Your task to perform on an android device: Is it going to rain this weekend? Image 0: 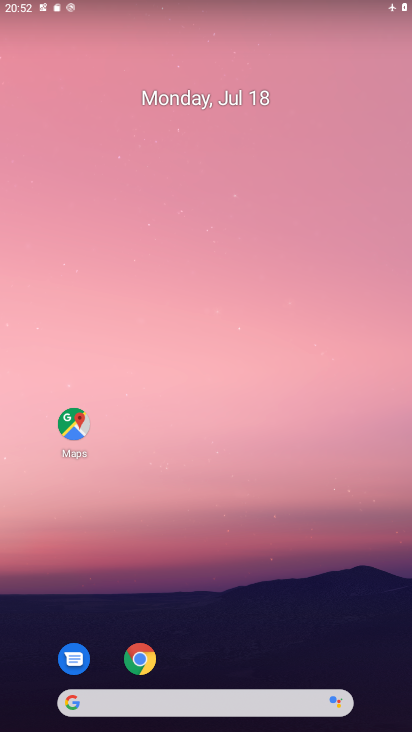
Step 0: drag from (218, 608) to (218, 276)
Your task to perform on an android device: Is it going to rain this weekend? Image 1: 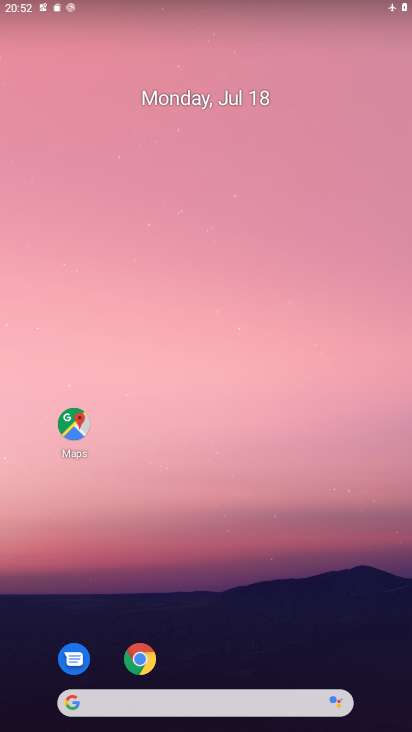
Step 1: drag from (213, 420) to (213, 269)
Your task to perform on an android device: Is it going to rain this weekend? Image 2: 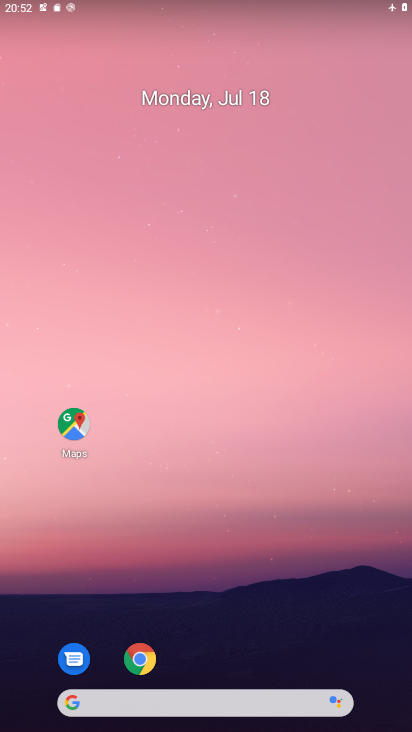
Step 2: drag from (226, 601) to (231, 241)
Your task to perform on an android device: Is it going to rain this weekend? Image 3: 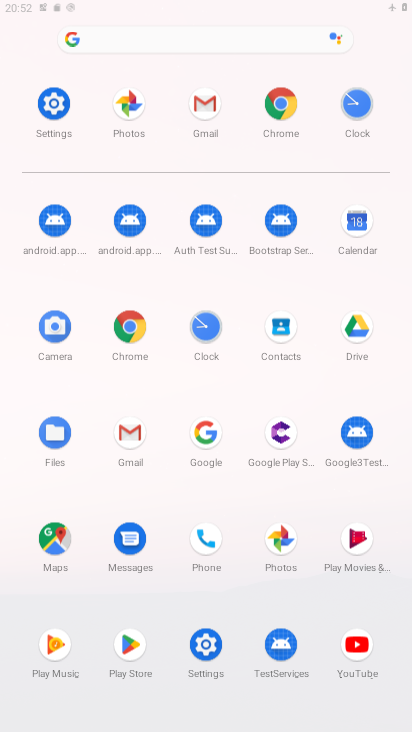
Step 3: drag from (226, 529) to (226, 195)
Your task to perform on an android device: Is it going to rain this weekend? Image 4: 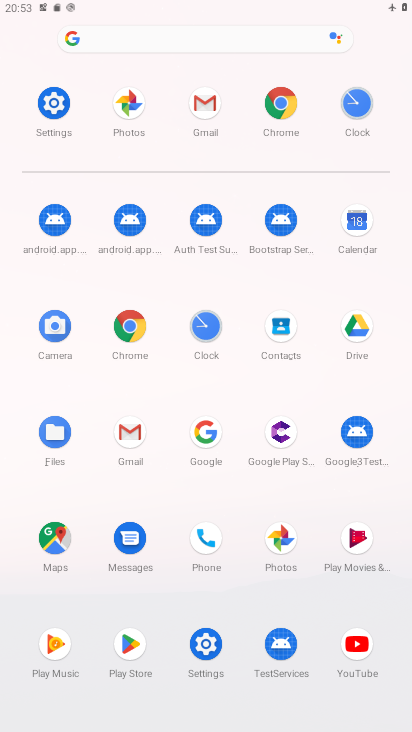
Step 4: click (279, 109)
Your task to perform on an android device: Is it going to rain this weekend? Image 5: 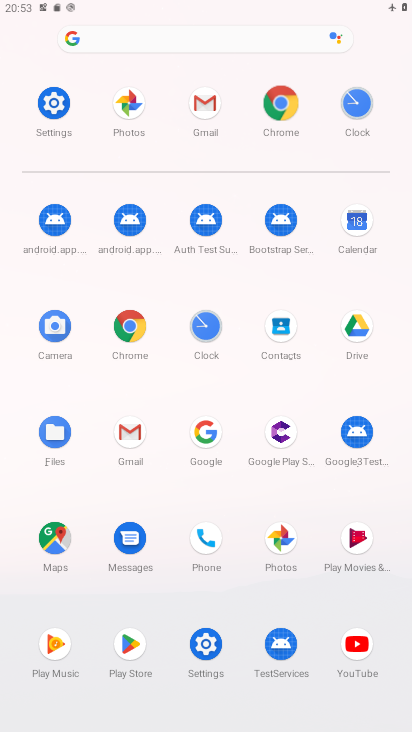
Step 5: click (279, 109)
Your task to perform on an android device: Is it going to rain this weekend? Image 6: 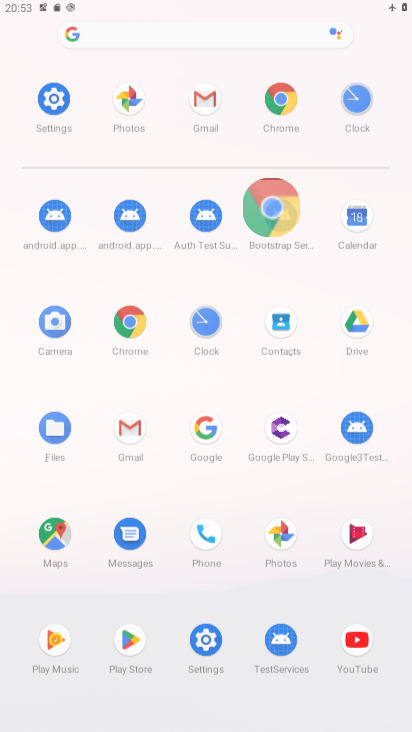
Step 6: click (280, 109)
Your task to perform on an android device: Is it going to rain this weekend? Image 7: 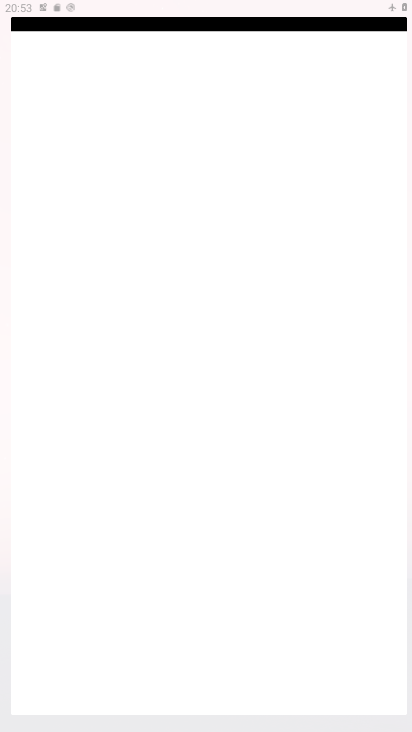
Step 7: click (280, 109)
Your task to perform on an android device: Is it going to rain this weekend? Image 8: 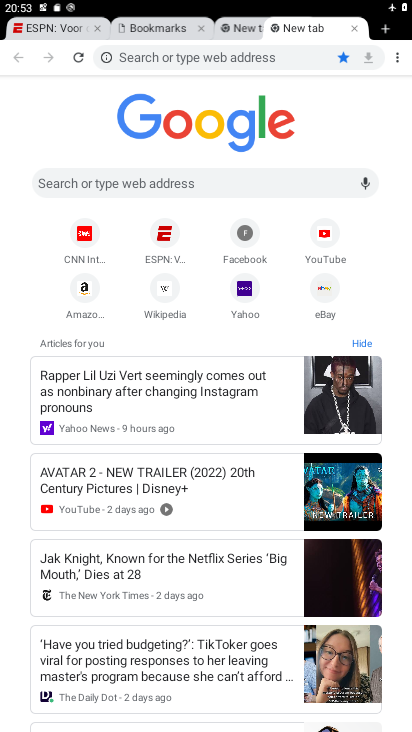
Step 8: drag from (396, 56) to (280, 53)
Your task to perform on an android device: Is it going to rain this weekend? Image 9: 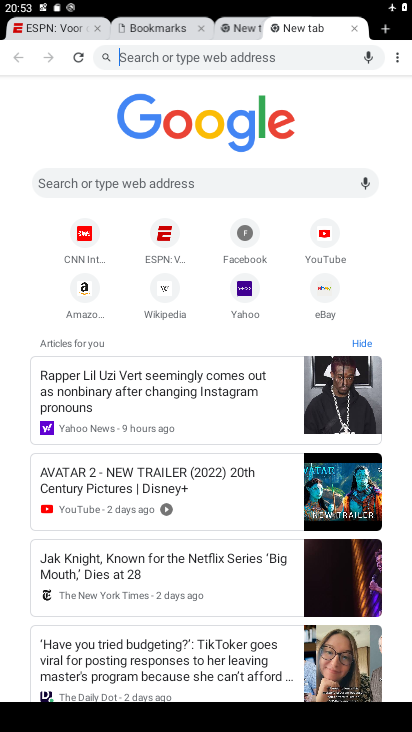
Step 9: type "is it goingn to rain thisn weekend?"
Your task to perform on an android device: Is it going to rain this weekend? Image 10: 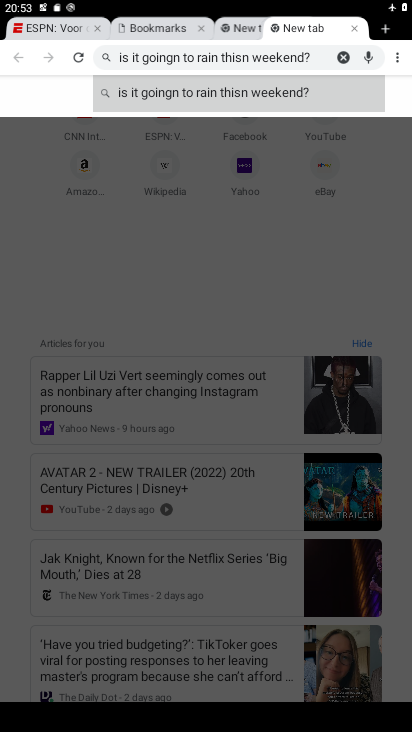
Step 10: click (274, 95)
Your task to perform on an android device: Is it going to rain this weekend? Image 11: 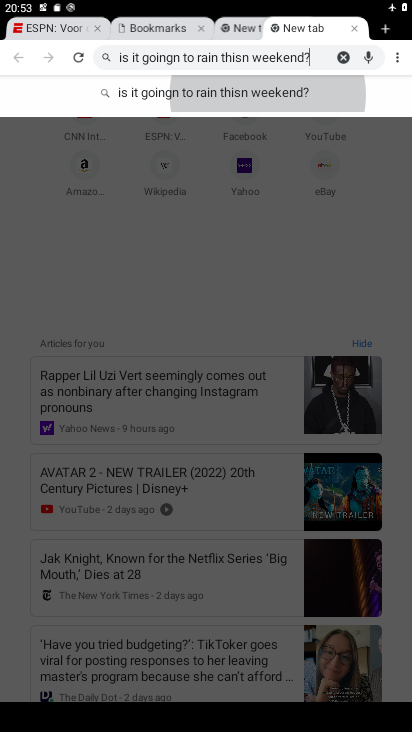
Step 11: click (273, 96)
Your task to perform on an android device: Is it going to rain this weekend? Image 12: 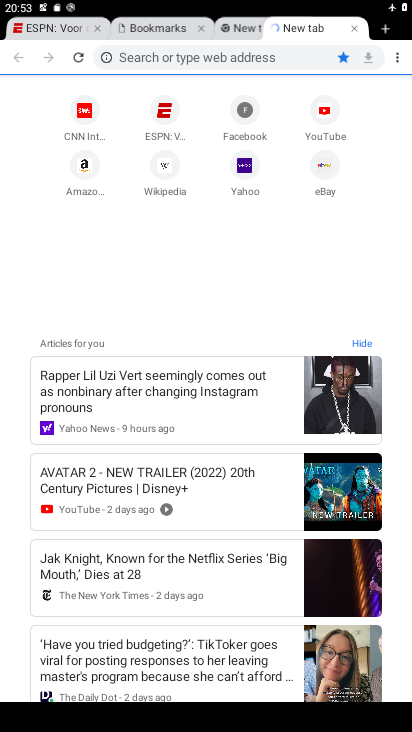
Step 12: click (273, 96)
Your task to perform on an android device: Is it going to rain this weekend? Image 13: 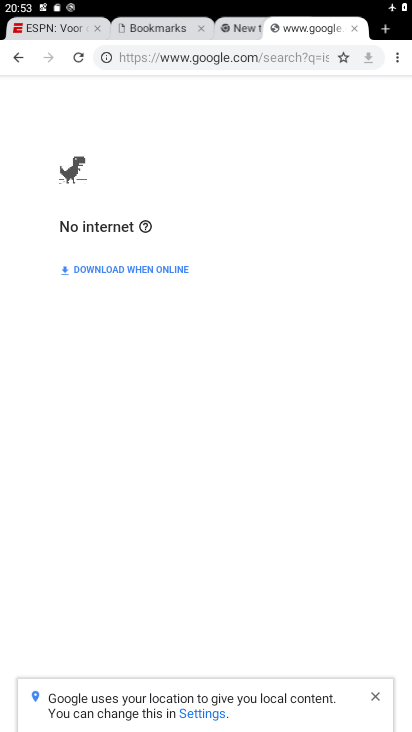
Step 13: task complete